Your task to perform on an android device: open app "PUBG MOBILE" (install if not already installed), go to login, and select forgot password Image 0: 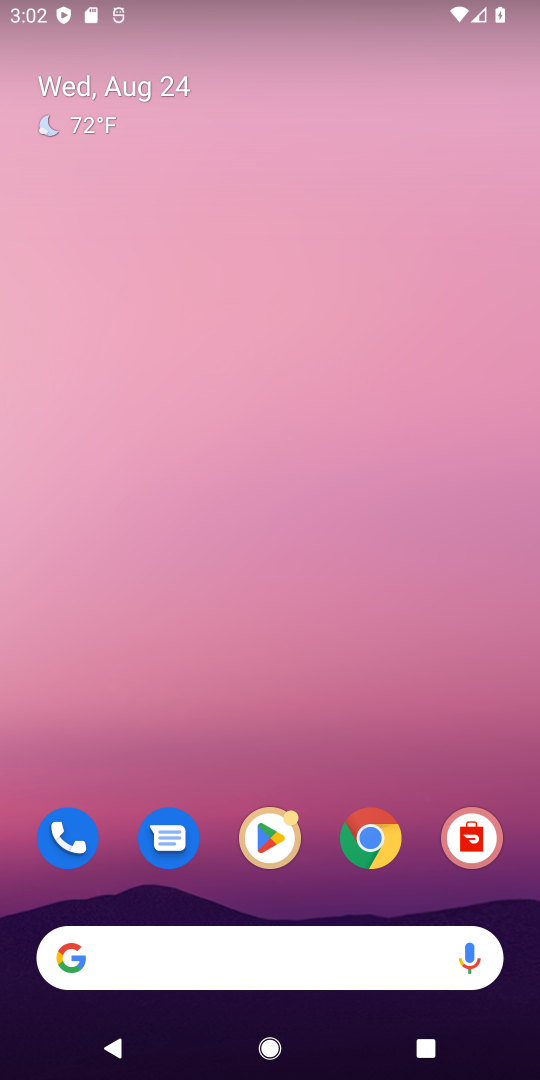
Step 0: press home button
Your task to perform on an android device: open app "PUBG MOBILE" (install if not already installed), go to login, and select forgot password Image 1: 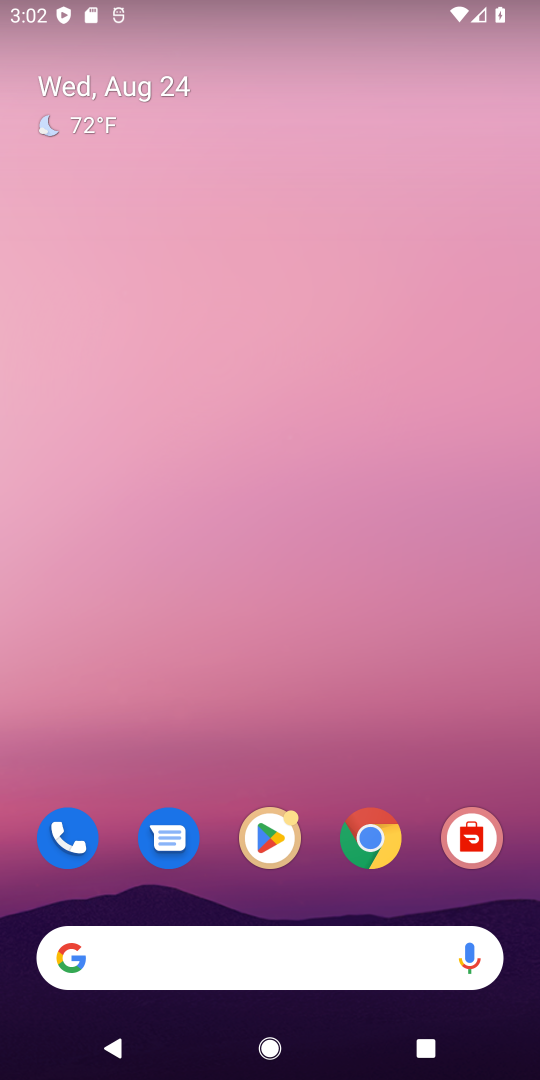
Step 1: drag from (421, 685) to (448, 102)
Your task to perform on an android device: open app "PUBG MOBILE" (install if not already installed), go to login, and select forgot password Image 2: 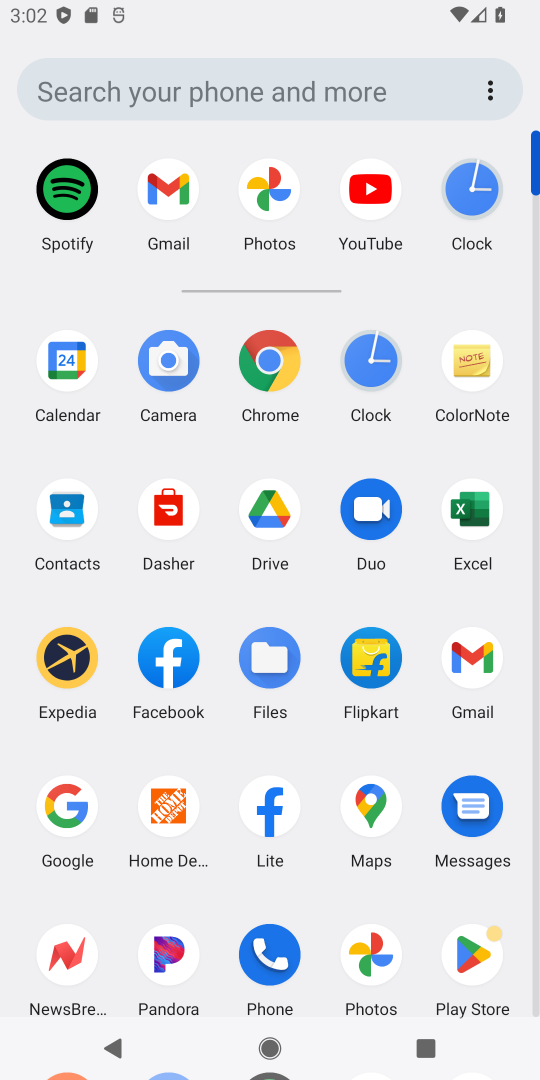
Step 2: click (473, 958)
Your task to perform on an android device: open app "PUBG MOBILE" (install if not already installed), go to login, and select forgot password Image 3: 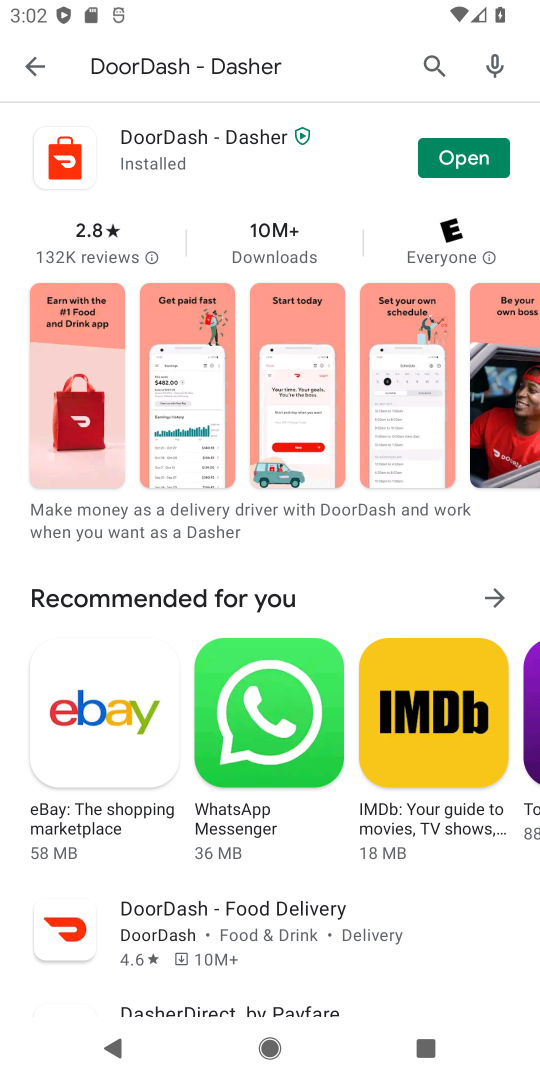
Step 3: press back button
Your task to perform on an android device: open app "PUBG MOBILE" (install if not already installed), go to login, and select forgot password Image 4: 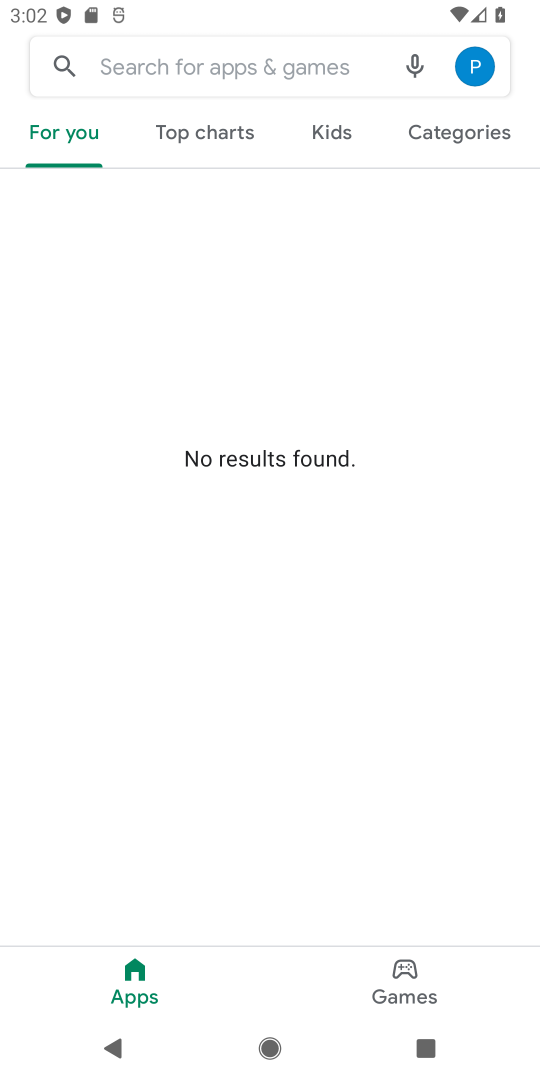
Step 4: click (254, 75)
Your task to perform on an android device: open app "PUBG MOBILE" (install if not already installed), go to login, and select forgot password Image 5: 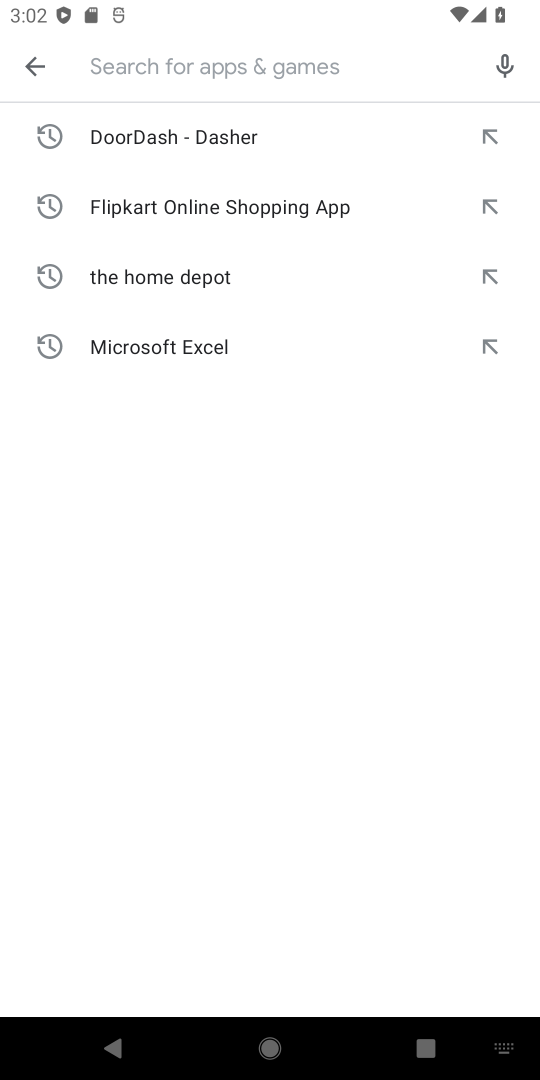
Step 5: press enter
Your task to perform on an android device: open app "PUBG MOBILE" (install if not already installed), go to login, and select forgot password Image 6: 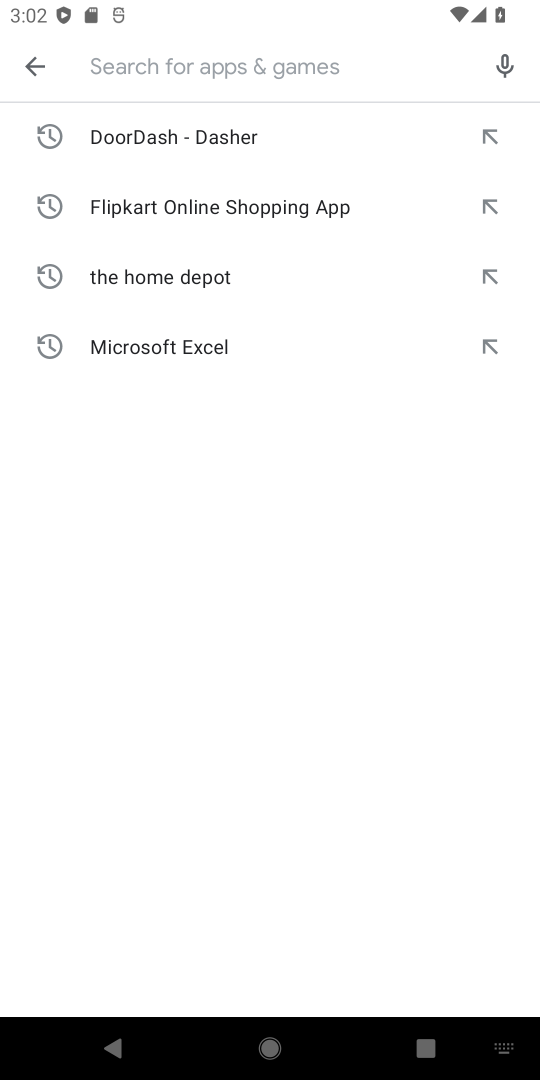
Step 6: type "PUBG MOBILE"
Your task to perform on an android device: open app "PUBG MOBILE" (install if not already installed), go to login, and select forgot password Image 7: 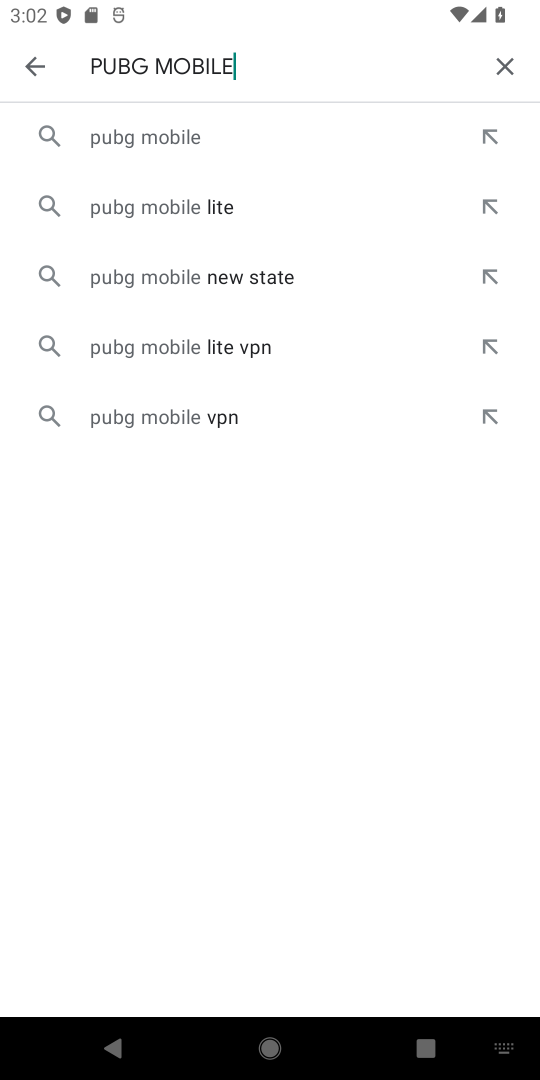
Step 7: click (208, 139)
Your task to perform on an android device: open app "PUBG MOBILE" (install if not already installed), go to login, and select forgot password Image 8: 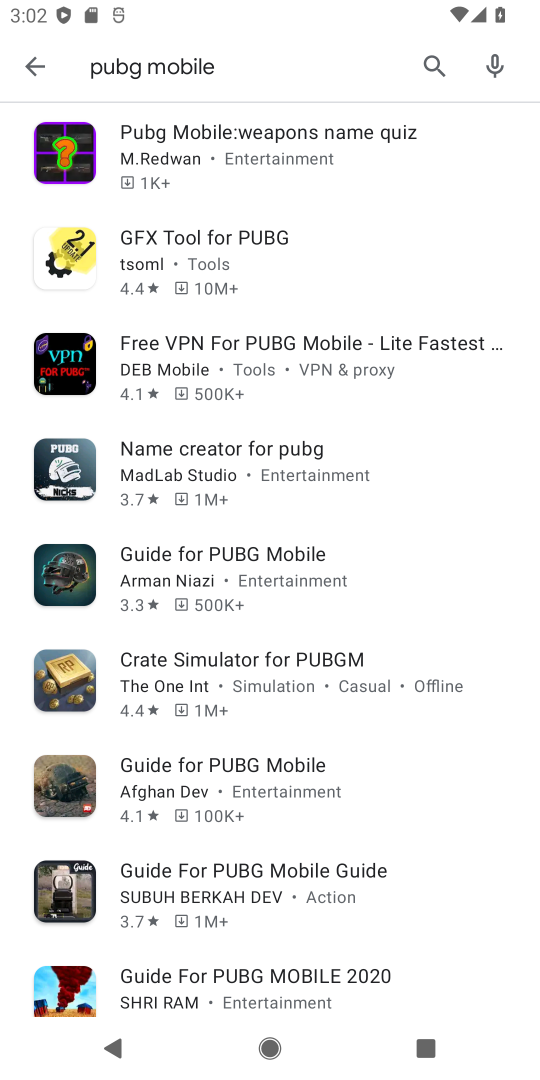
Step 8: task complete